Your task to perform on an android device: Open settings on Google Maps Image 0: 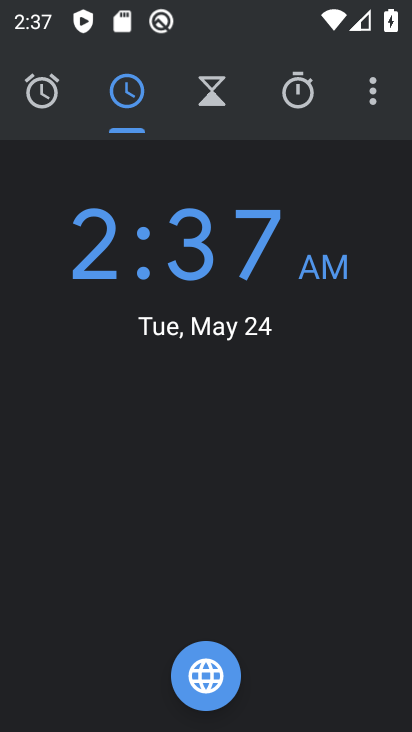
Step 0: press home button
Your task to perform on an android device: Open settings on Google Maps Image 1: 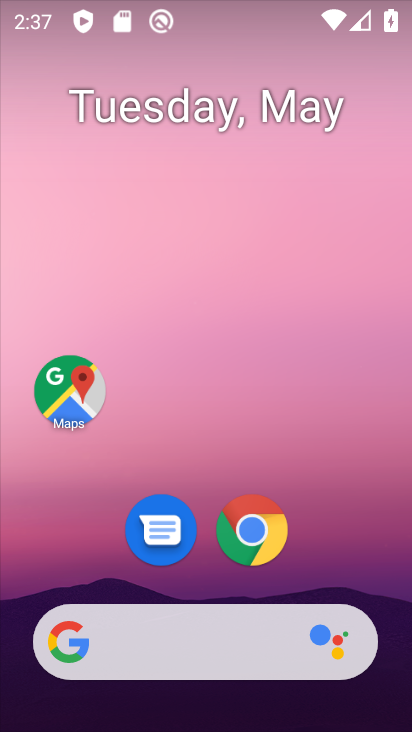
Step 1: click (64, 376)
Your task to perform on an android device: Open settings on Google Maps Image 2: 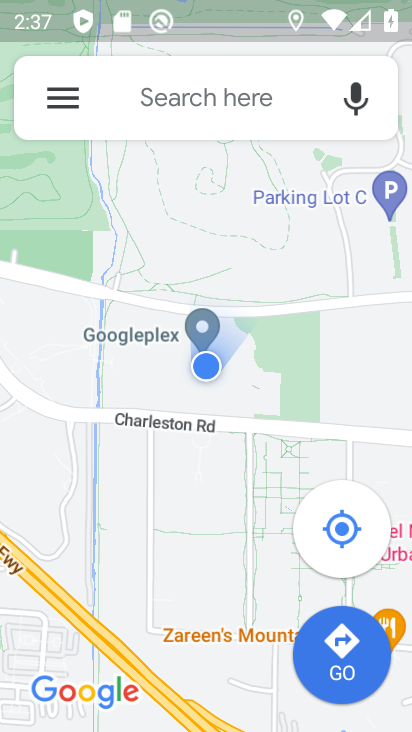
Step 2: task complete